Your task to perform on an android device: Go to settings Image 0: 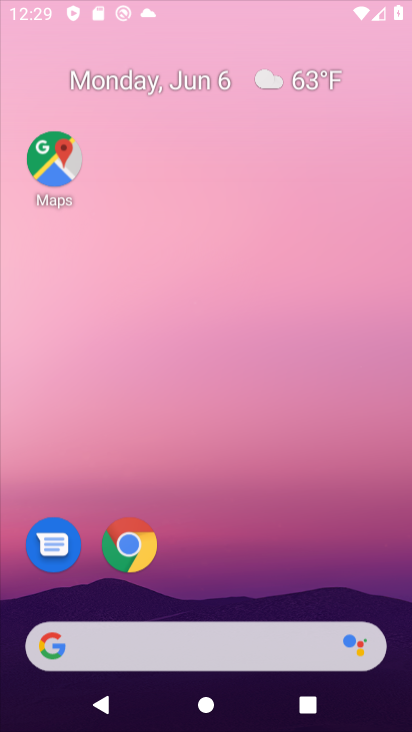
Step 0: drag from (208, 545) to (184, 5)
Your task to perform on an android device: Go to settings Image 1: 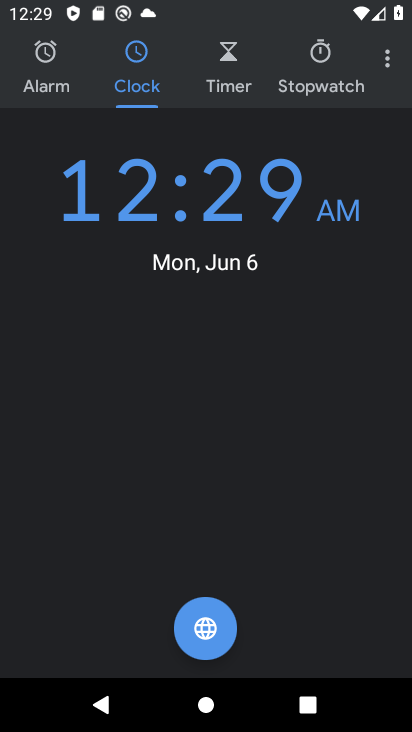
Step 1: press home button
Your task to perform on an android device: Go to settings Image 2: 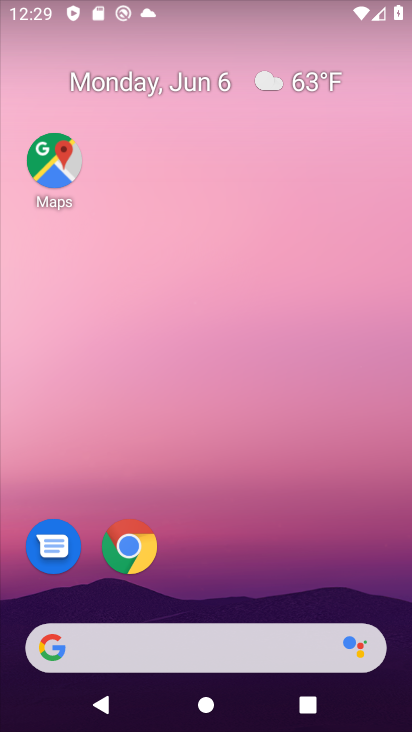
Step 2: drag from (198, 610) to (141, 34)
Your task to perform on an android device: Go to settings Image 3: 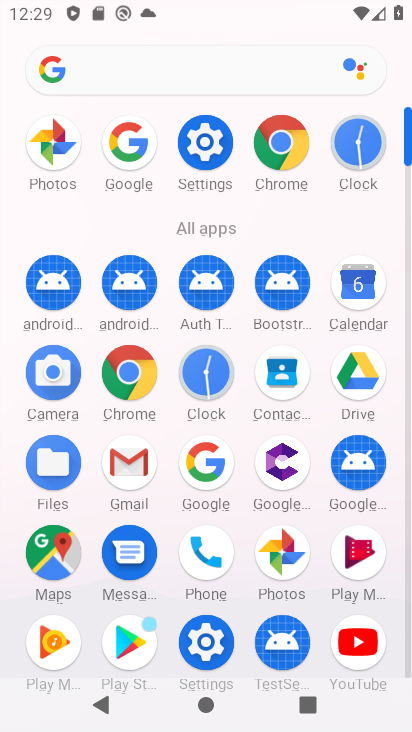
Step 3: click (195, 165)
Your task to perform on an android device: Go to settings Image 4: 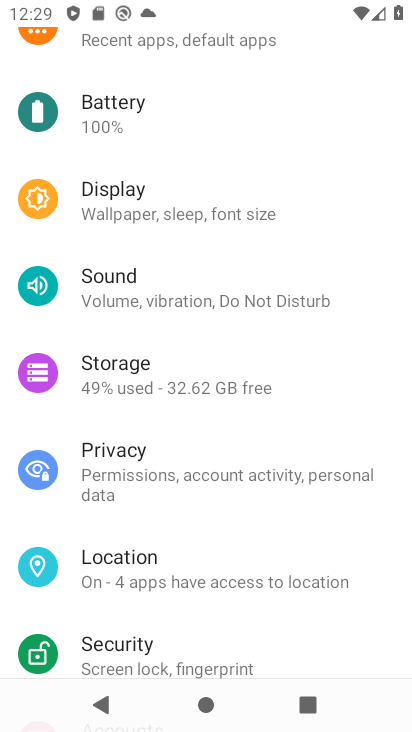
Step 4: task complete